Your task to perform on an android device: snooze an email in the gmail app Image 0: 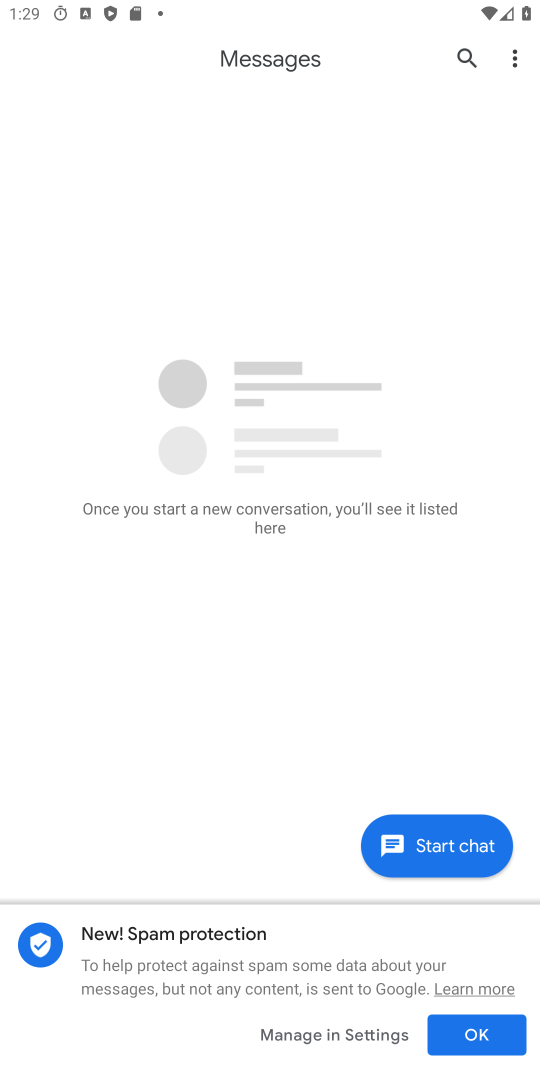
Step 0: press home button
Your task to perform on an android device: snooze an email in the gmail app Image 1: 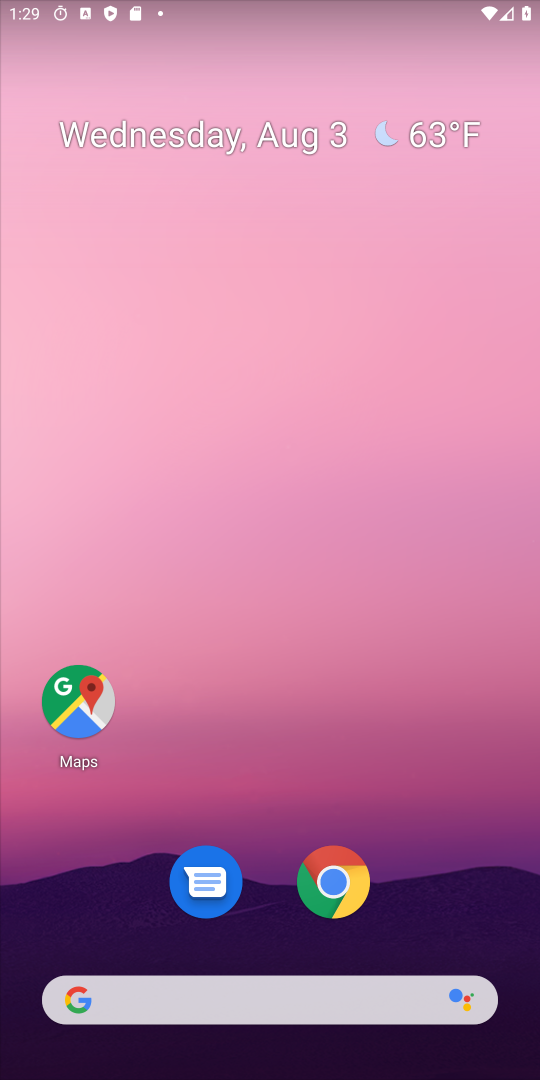
Step 1: drag from (324, 663) to (404, 6)
Your task to perform on an android device: snooze an email in the gmail app Image 2: 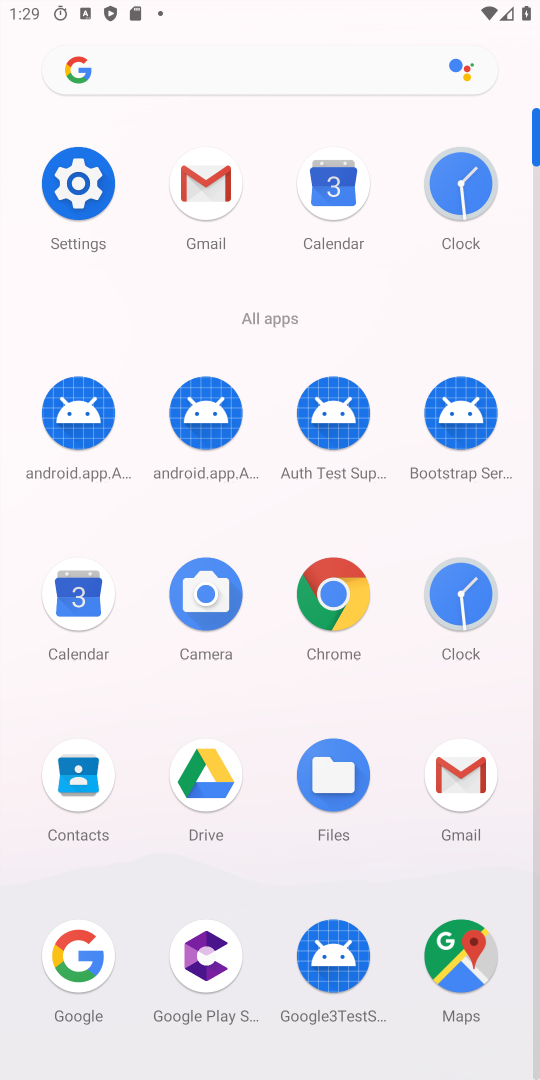
Step 2: click (463, 793)
Your task to perform on an android device: snooze an email in the gmail app Image 3: 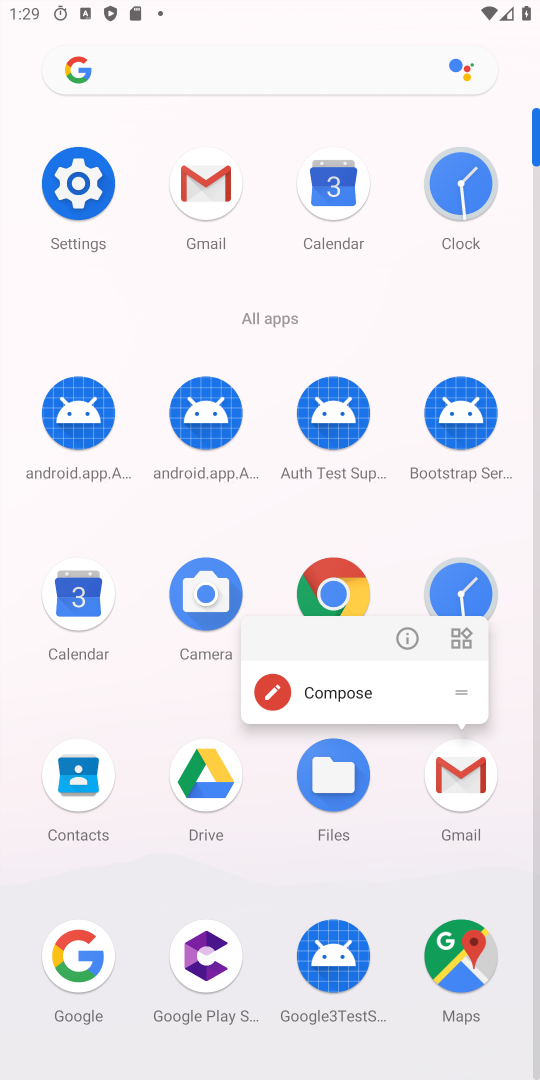
Step 3: click (458, 787)
Your task to perform on an android device: snooze an email in the gmail app Image 4: 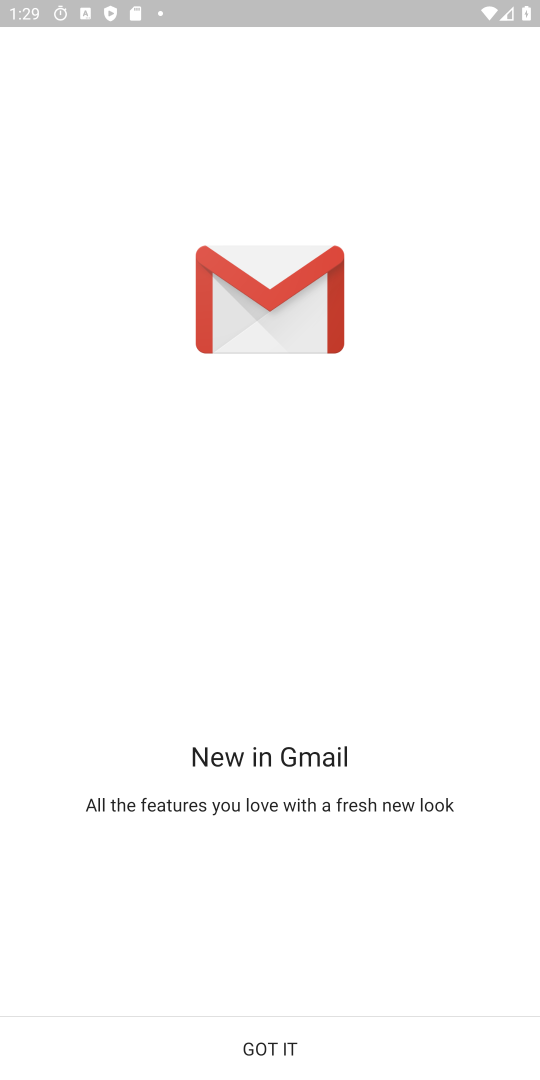
Step 4: click (279, 1046)
Your task to perform on an android device: snooze an email in the gmail app Image 5: 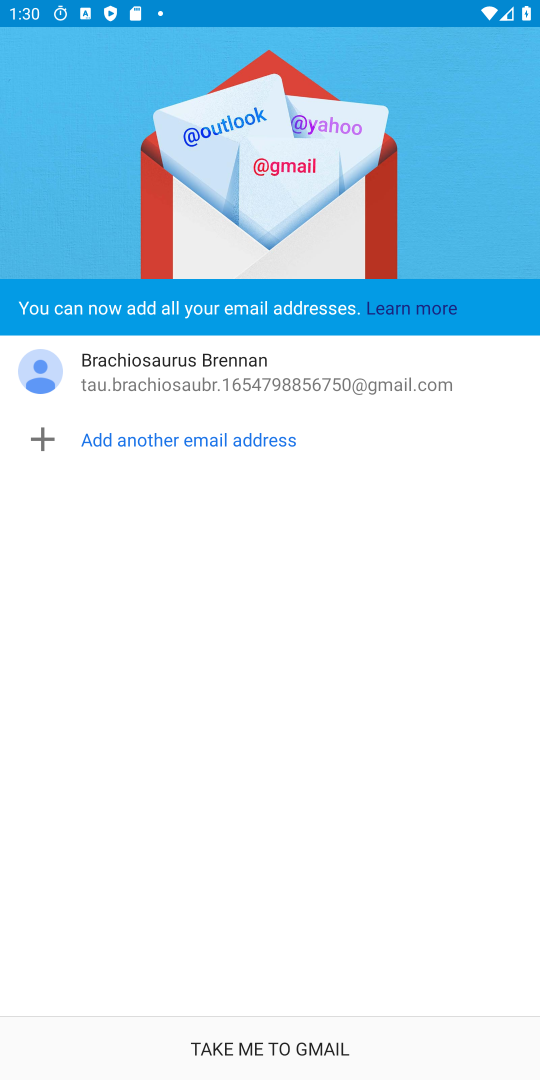
Step 5: click (324, 1044)
Your task to perform on an android device: snooze an email in the gmail app Image 6: 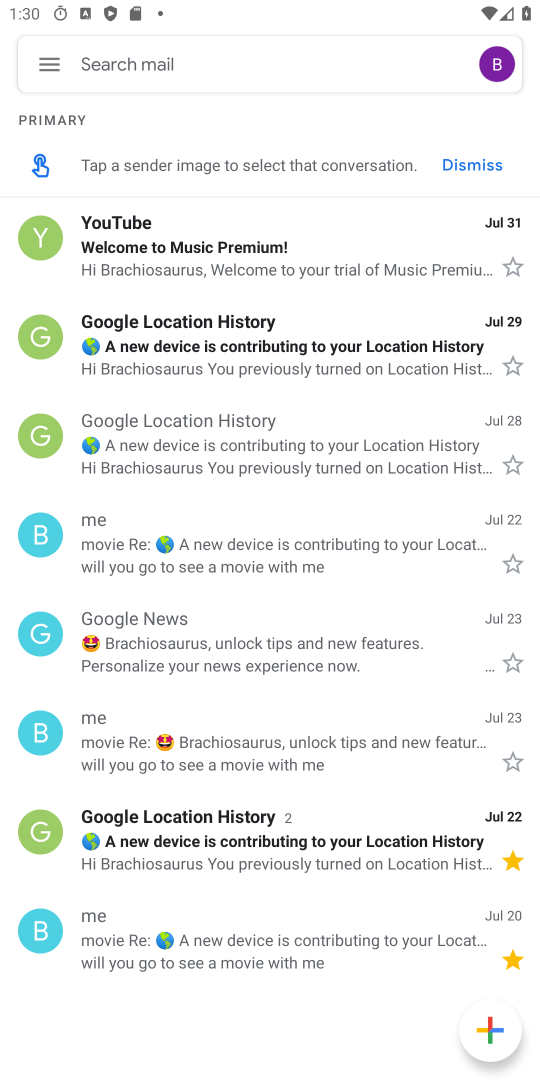
Step 6: click (265, 332)
Your task to perform on an android device: snooze an email in the gmail app Image 7: 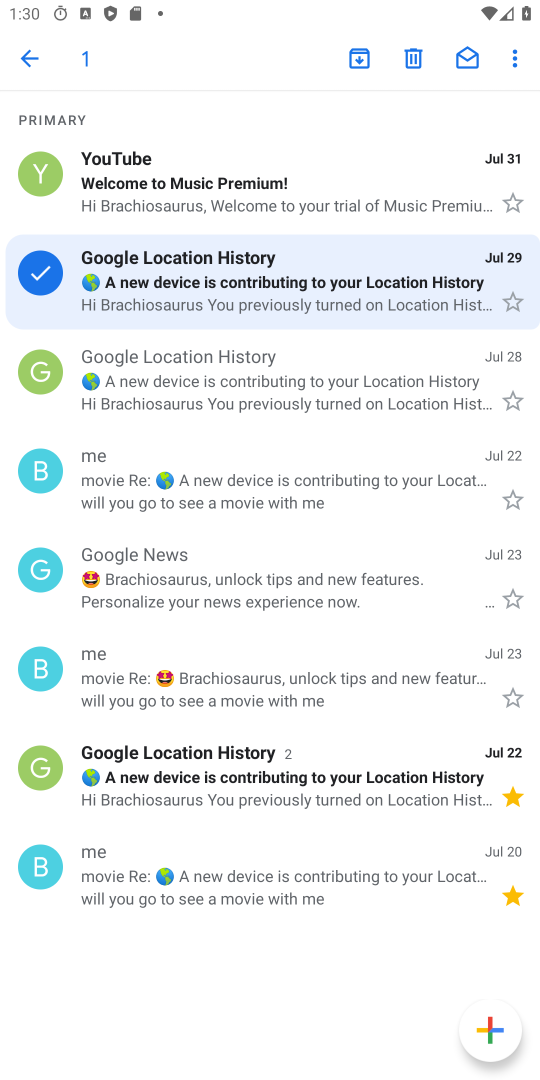
Step 7: click (514, 72)
Your task to perform on an android device: snooze an email in the gmail app Image 8: 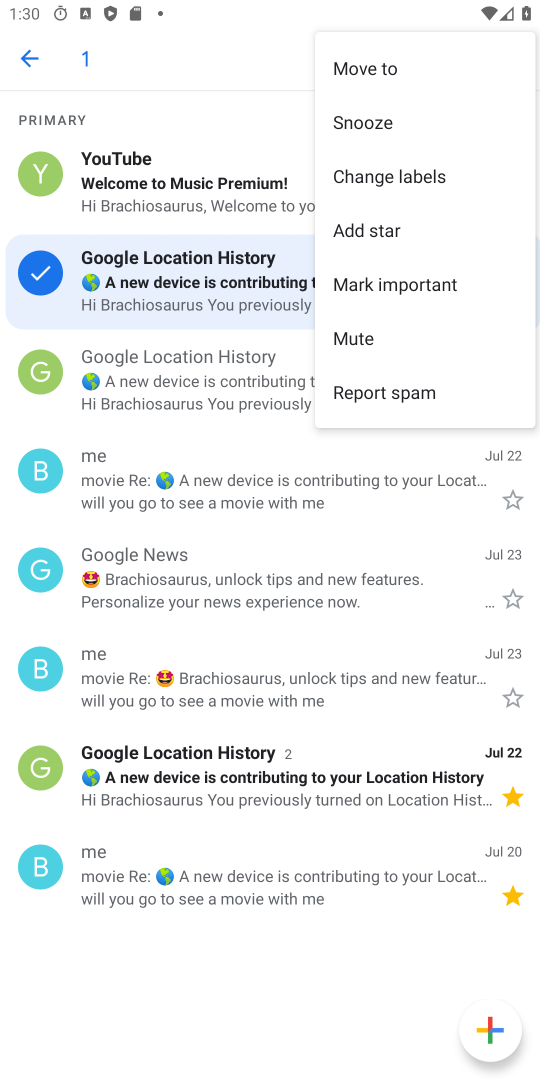
Step 8: click (395, 130)
Your task to perform on an android device: snooze an email in the gmail app Image 9: 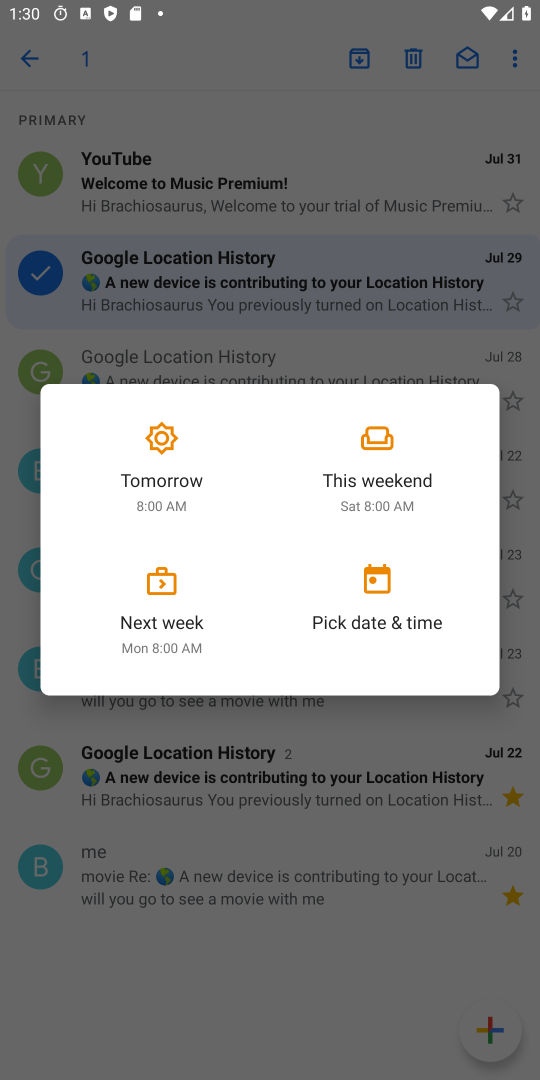
Step 9: click (358, 611)
Your task to perform on an android device: snooze an email in the gmail app Image 10: 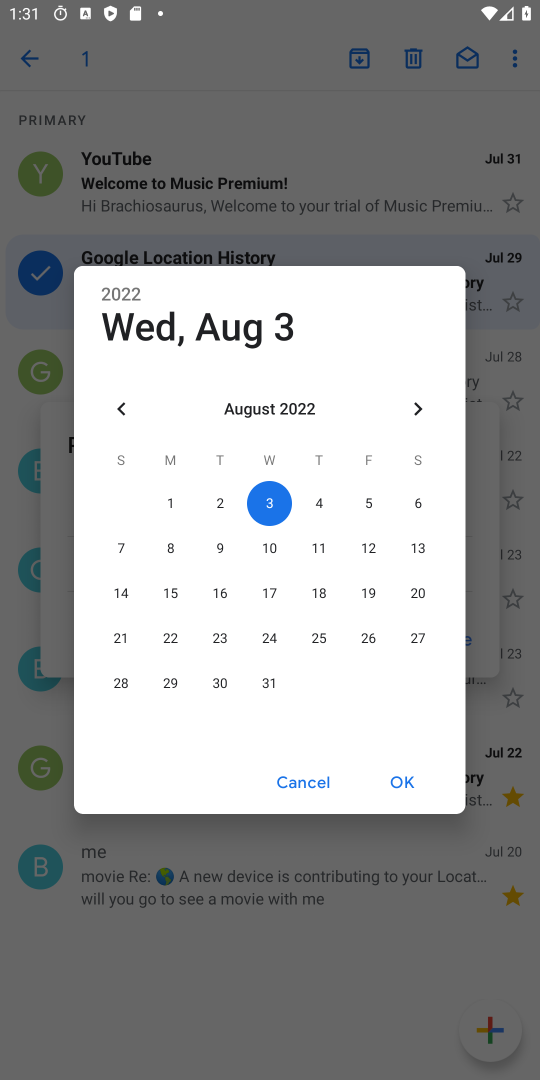
Step 10: click (385, 779)
Your task to perform on an android device: snooze an email in the gmail app Image 11: 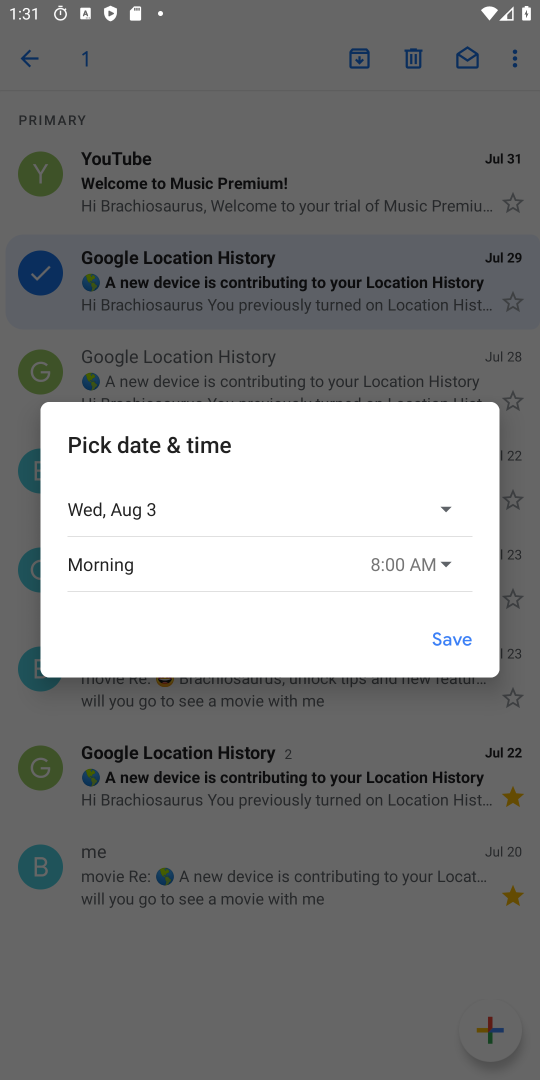
Step 11: task complete